Your task to perform on an android device: toggle javascript in the chrome app Image 0: 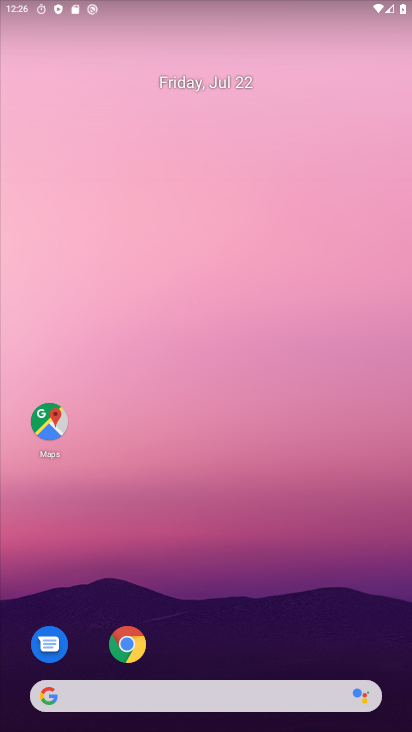
Step 0: drag from (220, 674) to (4, 74)
Your task to perform on an android device: toggle javascript in the chrome app Image 1: 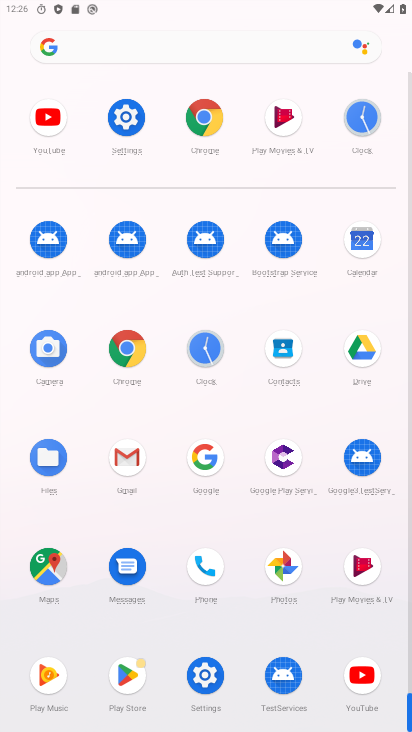
Step 1: click (183, 121)
Your task to perform on an android device: toggle javascript in the chrome app Image 2: 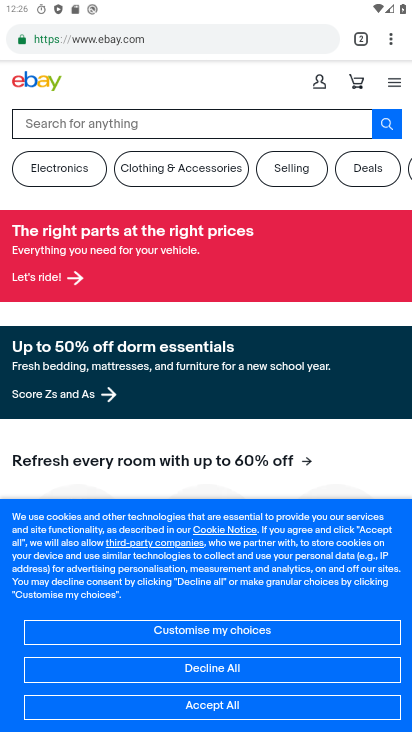
Step 2: click (390, 30)
Your task to perform on an android device: toggle javascript in the chrome app Image 3: 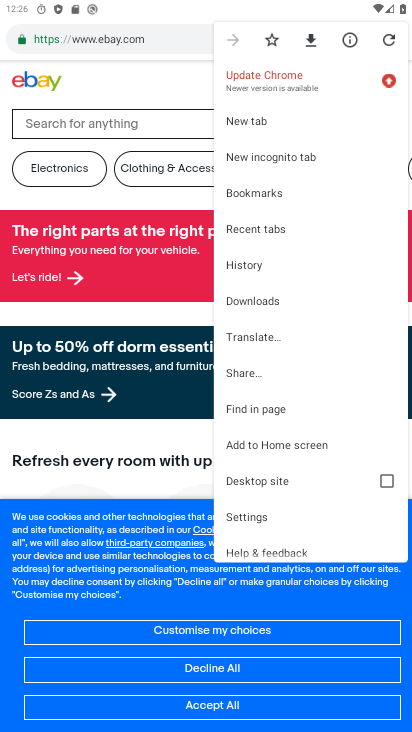
Step 3: click (268, 513)
Your task to perform on an android device: toggle javascript in the chrome app Image 4: 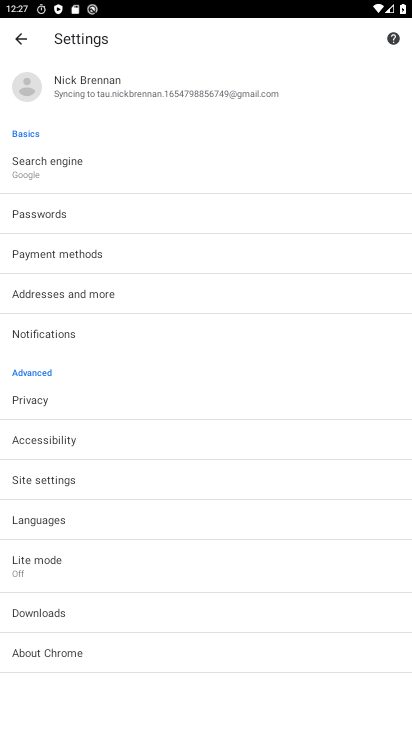
Step 4: click (80, 478)
Your task to perform on an android device: toggle javascript in the chrome app Image 5: 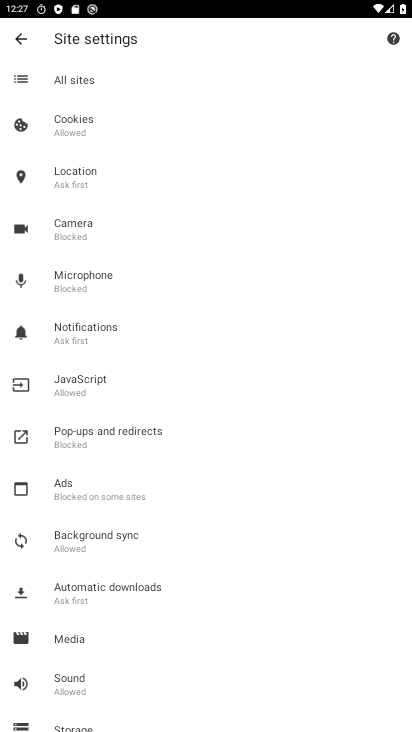
Step 5: click (117, 383)
Your task to perform on an android device: toggle javascript in the chrome app Image 6: 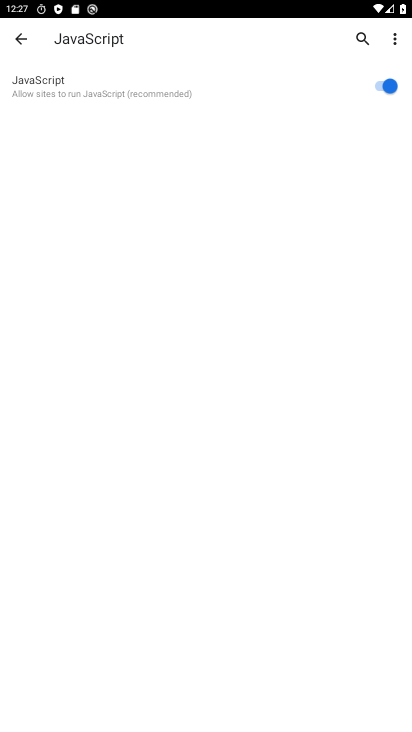
Step 6: click (378, 93)
Your task to perform on an android device: toggle javascript in the chrome app Image 7: 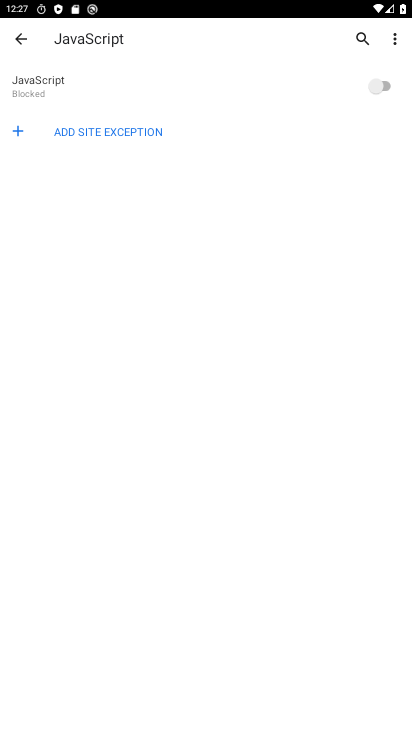
Step 7: task complete